Your task to perform on an android device: allow cookies in the chrome app Image 0: 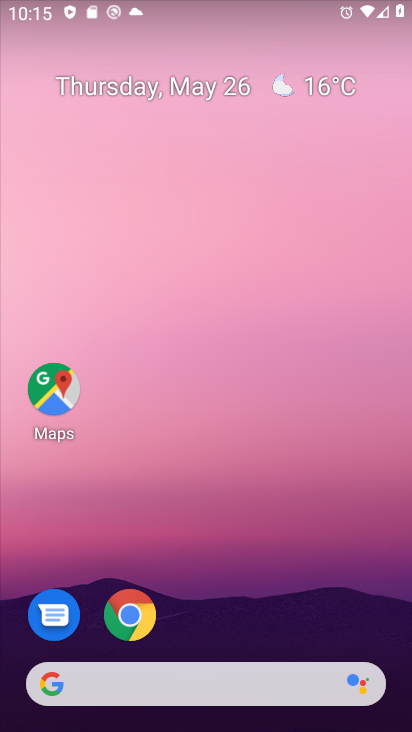
Step 0: press home button
Your task to perform on an android device: allow cookies in the chrome app Image 1: 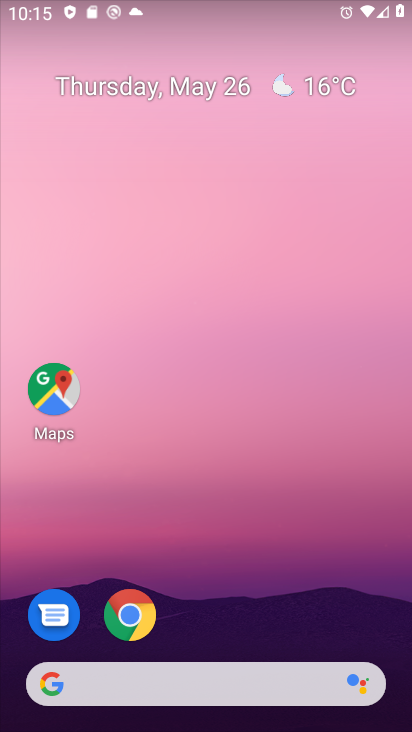
Step 1: drag from (311, 682) to (259, 64)
Your task to perform on an android device: allow cookies in the chrome app Image 2: 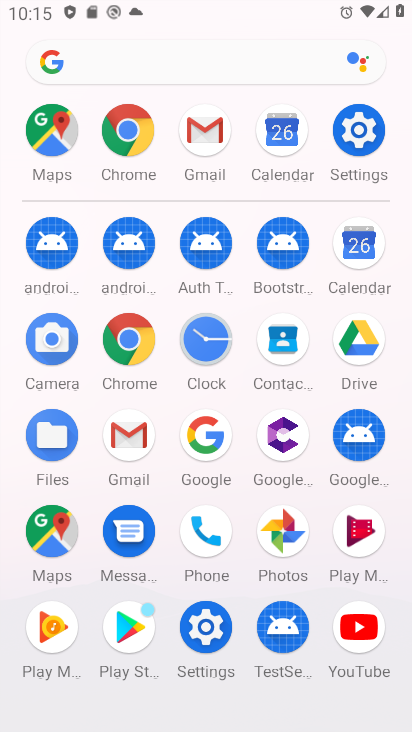
Step 2: click (134, 141)
Your task to perform on an android device: allow cookies in the chrome app Image 3: 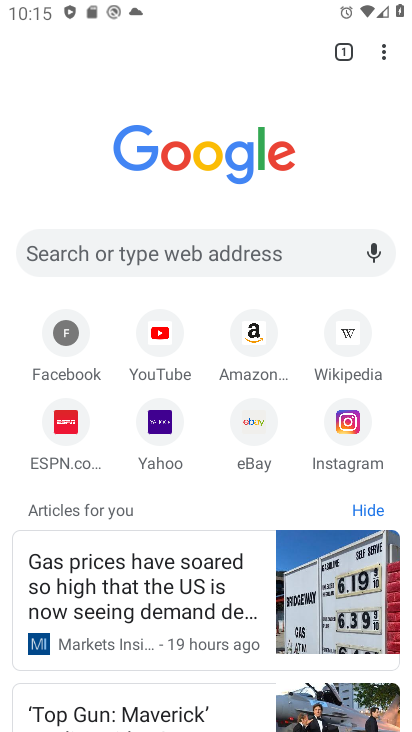
Step 3: click (381, 60)
Your task to perform on an android device: allow cookies in the chrome app Image 4: 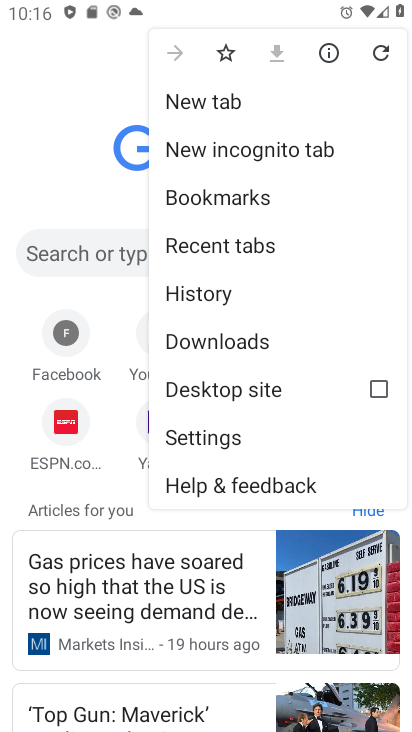
Step 4: click (214, 422)
Your task to perform on an android device: allow cookies in the chrome app Image 5: 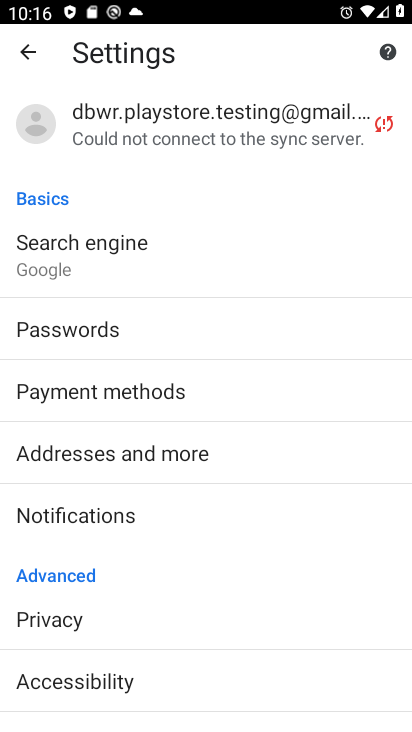
Step 5: drag from (120, 587) to (176, 362)
Your task to perform on an android device: allow cookies in the chrome app Image 6: 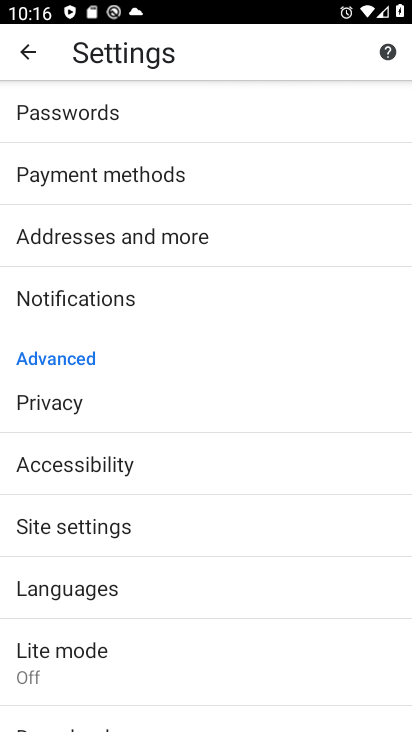
Step 6: click (65, 512)
Your task to perform on an android device: allow cookies in the chrome app Image 7: 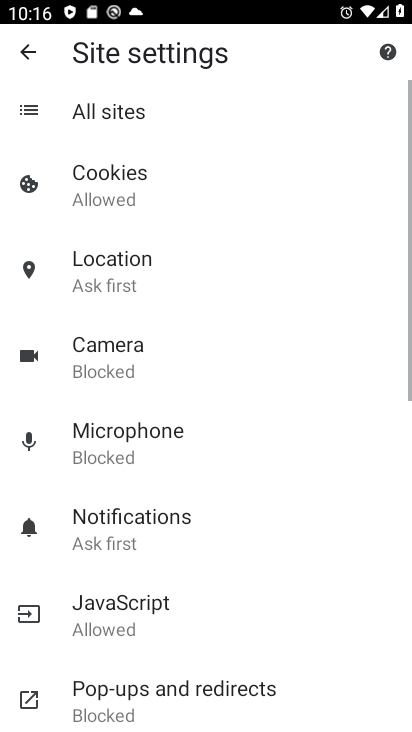
Step 7: click (168, 177)
Your task to perform on an android device: allow cookies in the chrome app Image 8: 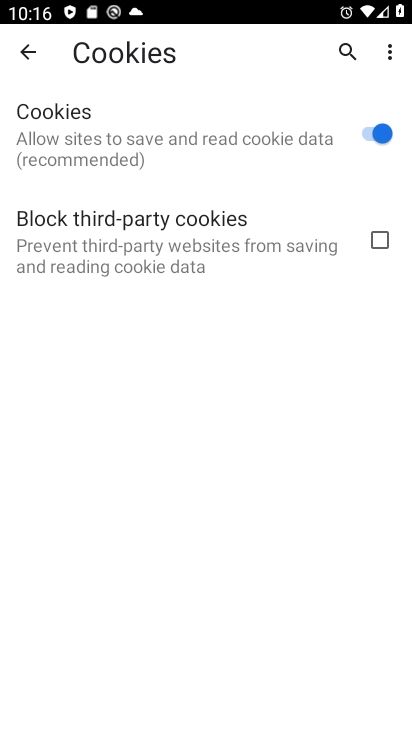
Step 8: task complete